Your task to perform on an android device: Check the weather Image 0: 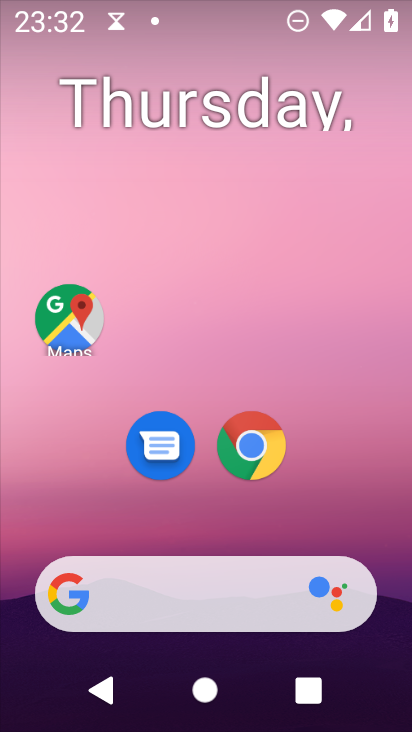
Step 0: drag from (242, 720) to (243, 86)
Your task to perform on an android device: Check the weather Image 1: 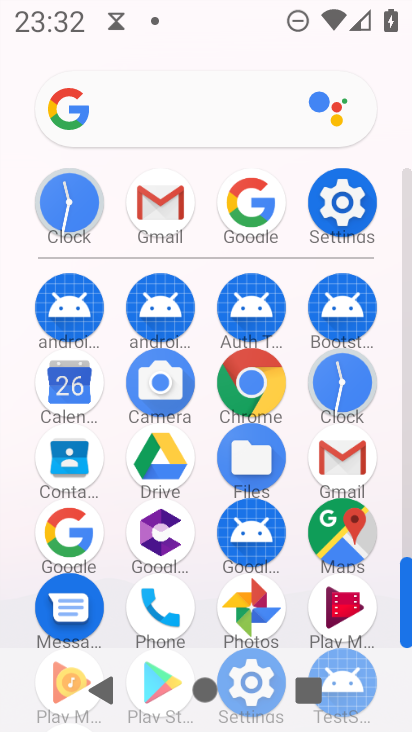
Step 1: click (77, 529)
Your task to perform on an android device: Check the weather Image 2: 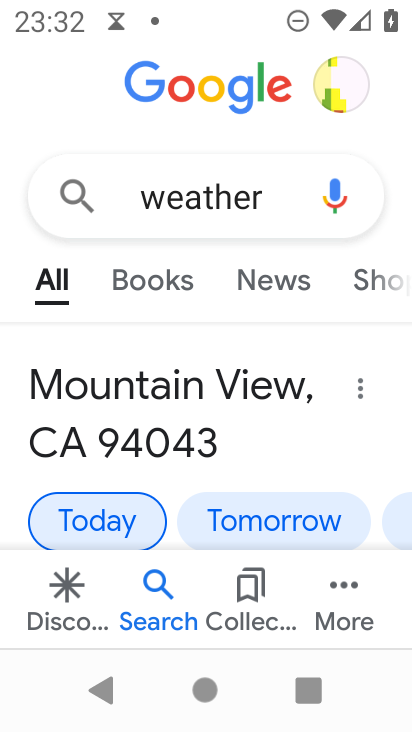
Step 2: click (112, 526)
Your task to perform on an android device: Check the weather Image 3: 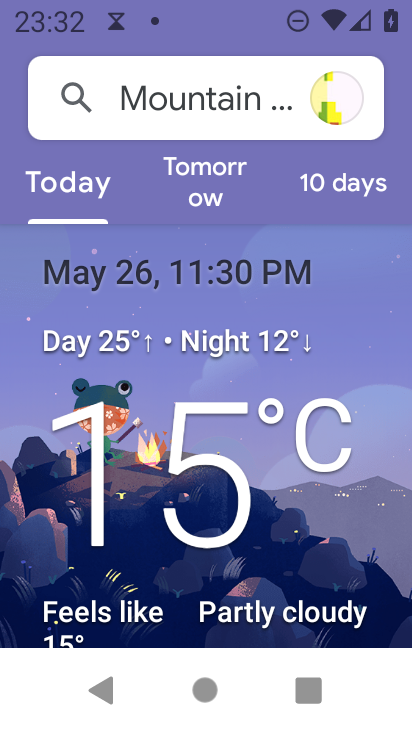
Step 3: task complete